Your task to perform on an android device: turn on wifi Image 0: 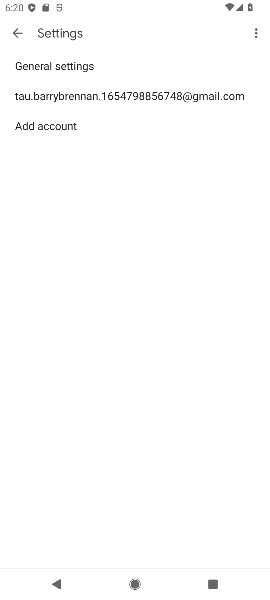
Step 0: press home button
Your task to perform on an android device: turn on wifi Image 1: 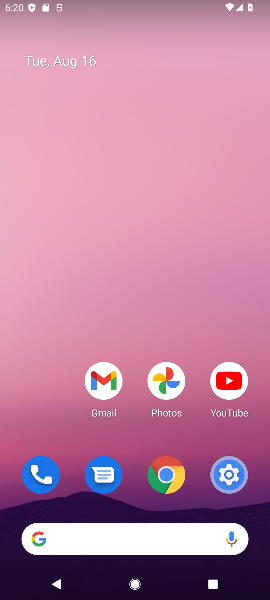
Step 1: task complete